Your task to perform on an android device: turn off javascript in the chrome app Image 0: 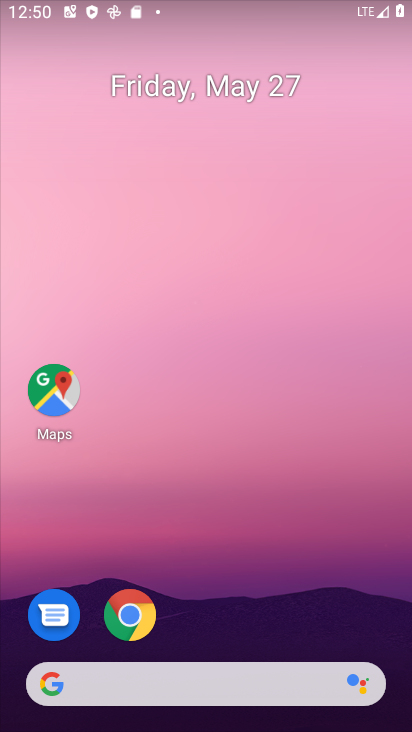
Step 0: drag from (267, 635) to (402, 6)
Your task to perform on an android device: turn off javascript in the chrome app Image 1: 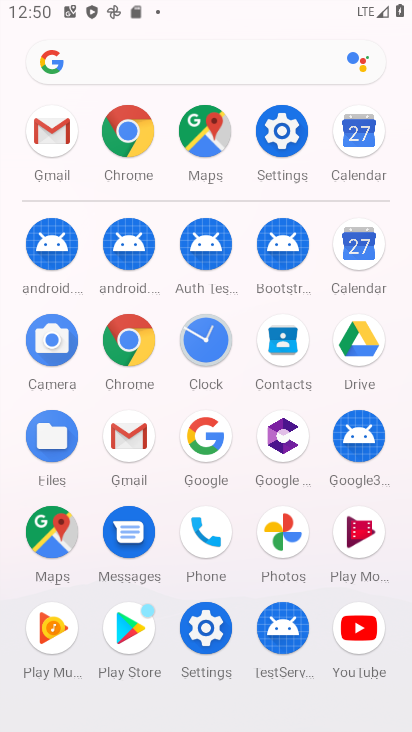
Step 1: click (126, 325)
Your task to perform on an android device: turn off javascript in the chrome app Image 2: 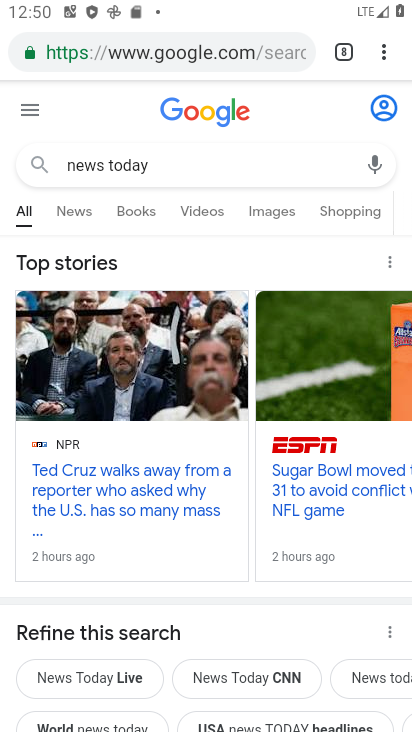
Step 2: drag from (390, 47) to (191, 574)
Your task to perform on an android device: turn off javascript in the chrome app Image 3: 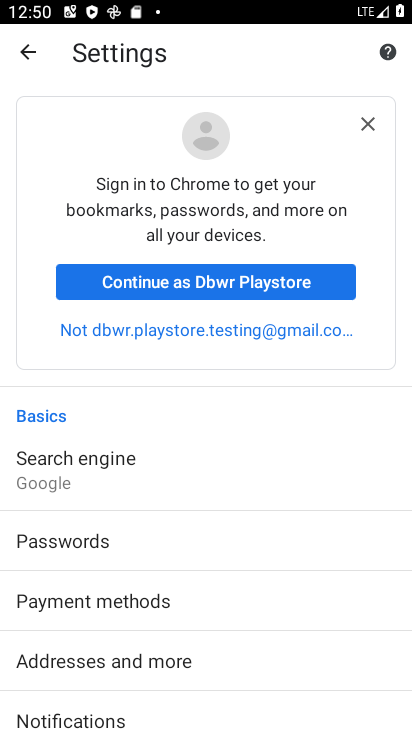
Step 3: drag from (190, 615) to (223, 13)
Your task to perform on an android device: turn off javascript in the chrome app Image 4: 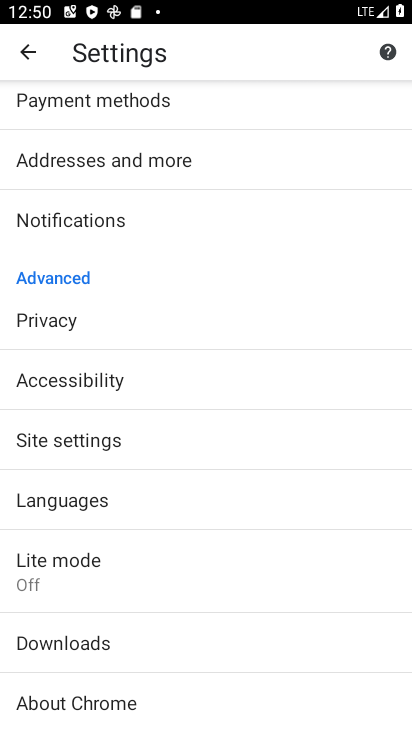
Step 4: click (127, 440)
Your task to perform on an android device: turn off javascript in the chrome app Image 5: 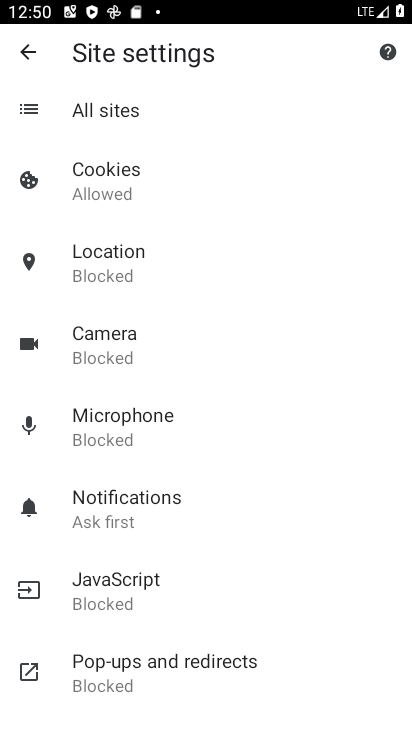
Step 5: click (131, 588)
Your task to perform on an android device: turn off javascript in the chrome app Image 6: 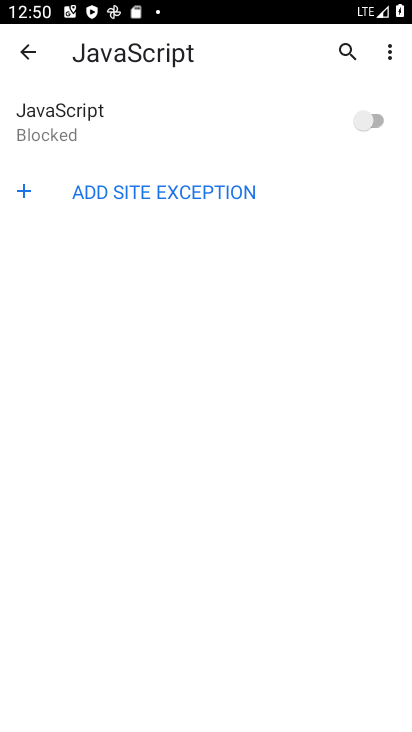
Step 6: task complete